Your task to perform on an android device: turn off wifi Image 0: 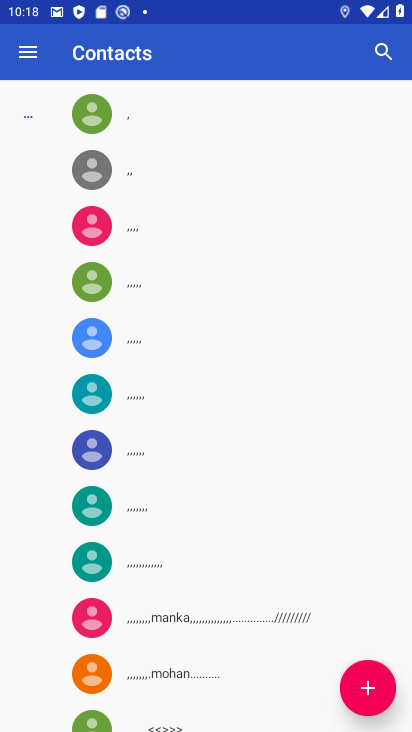
Step 0: press home button
Your task to perform on an android device: turn off wifi Image 1: 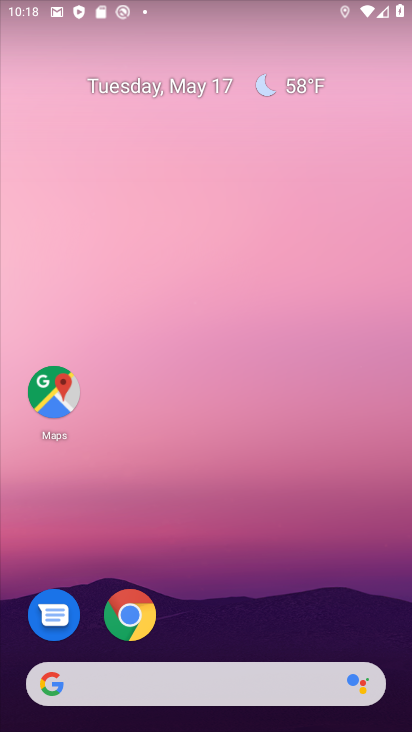
Step 1: drag from (215, 614) to (206, 243)
Your task to perform on an android device: turn off wifi Image 2: 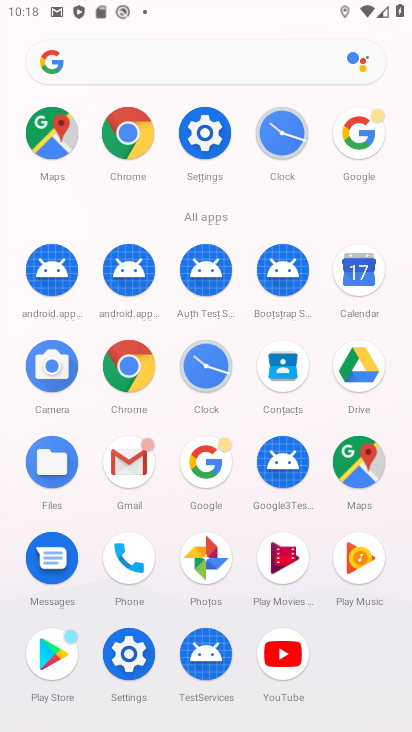
Step 2: click (209, 161)
Your task to perform on an android device: turn off wifi Image 3: 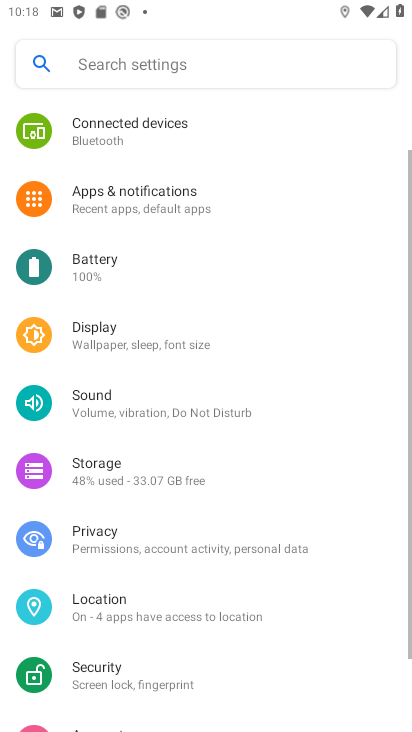
Step 3: drag from (209, 161) to (225, 475)
Your task to perform on an android device: turn off wifi Image 4: 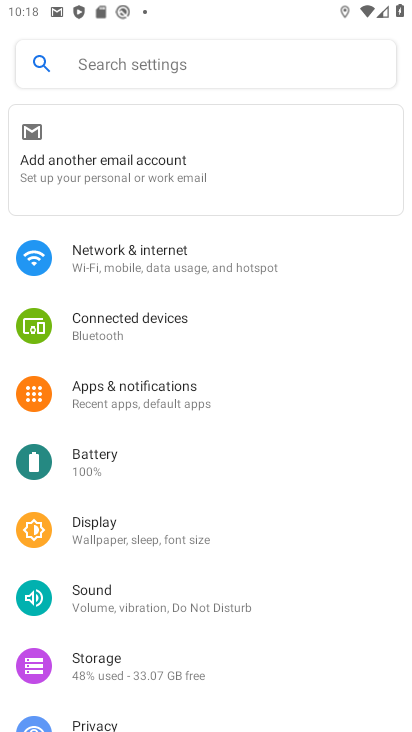
Step 4: click (148, 261)
Your task to perform on an android device: turn off wifi Image 5: 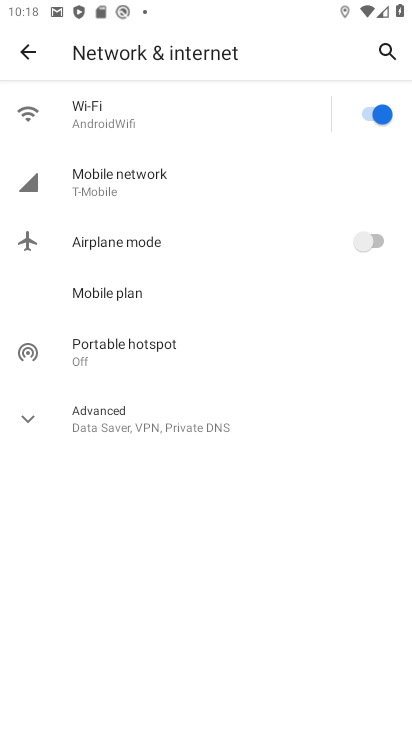
Step 5: click (365, 113)
Your task to perform on an android device: turn off wifi Image 6: 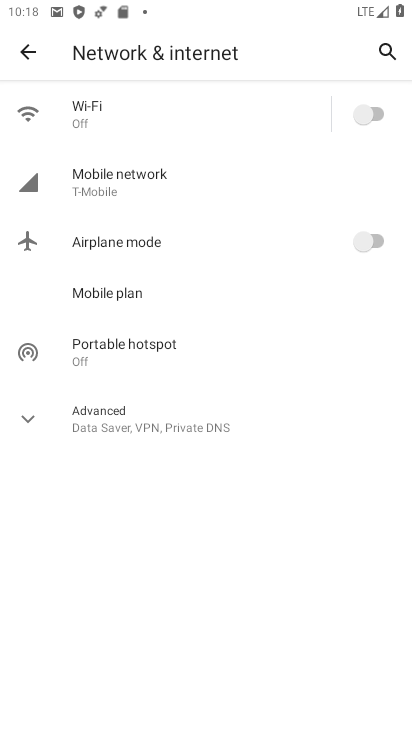
Step 6: task complete